Your task to perform on an android device: Go to network settings Image 0: 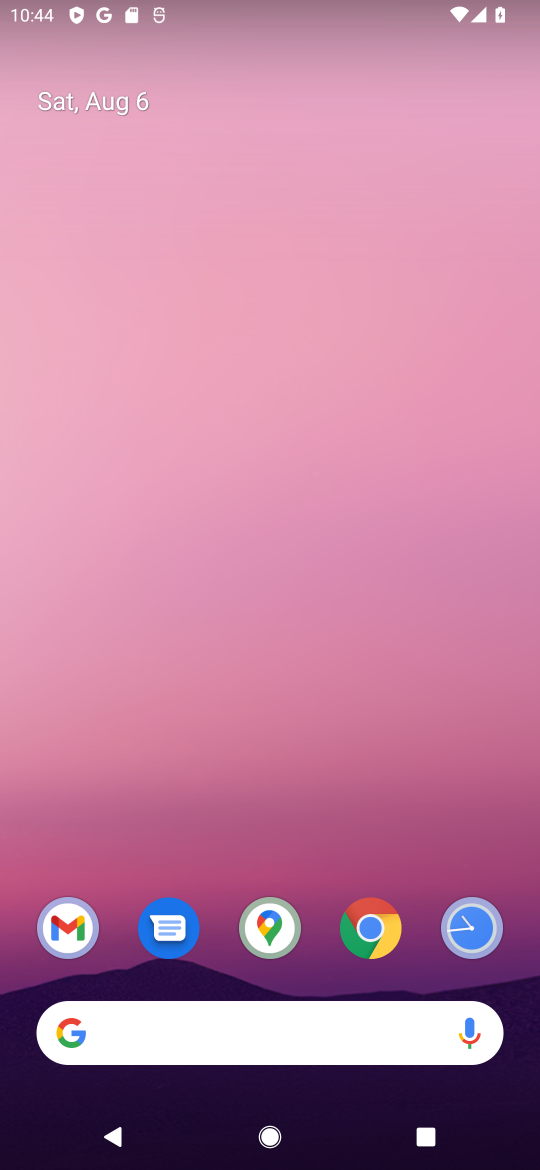
Step 0: drag from (156, 870) to (194, 71)
Your task to perform on an android device: Go to network settings Image 1: 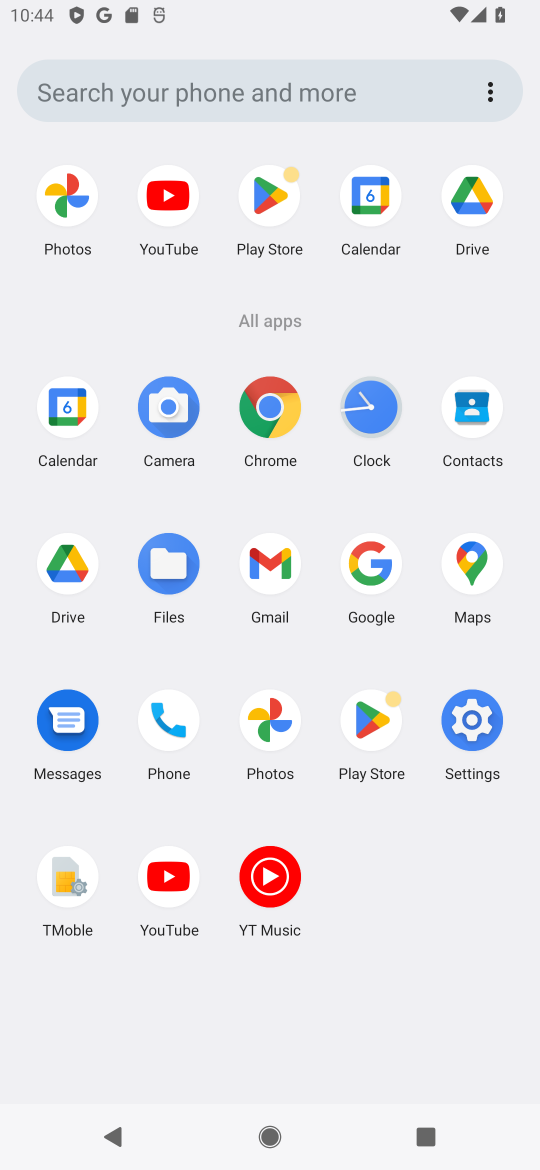
Step 1: click (475, 728)
Your task to perform on an android device: Go to network settings Image 2: 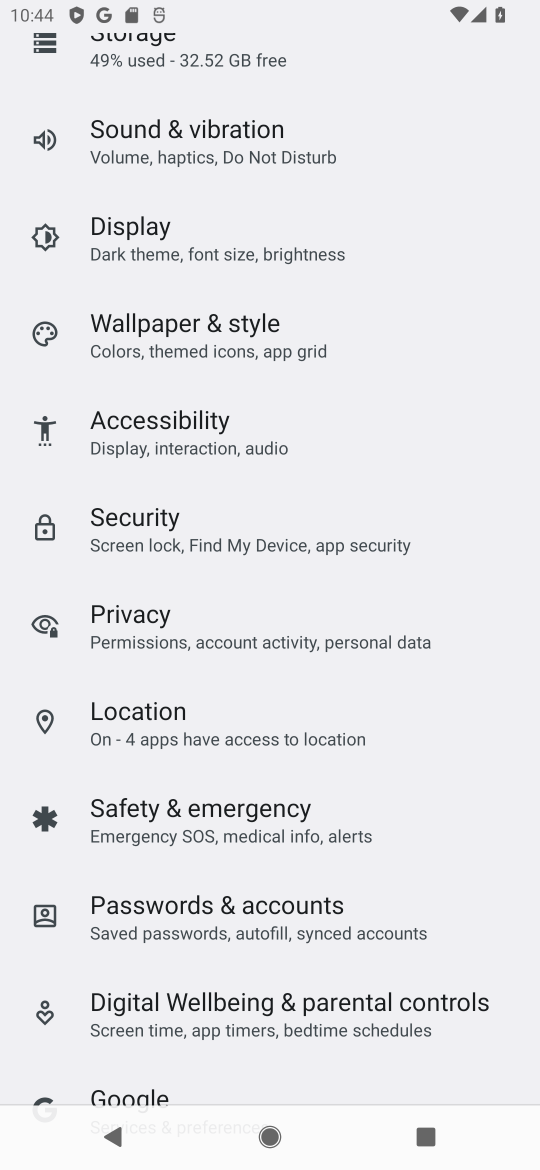
Step 2: drag from (378, 214) to (374, 729)
Your task to perform on an android device: Go to network settings Image 3: 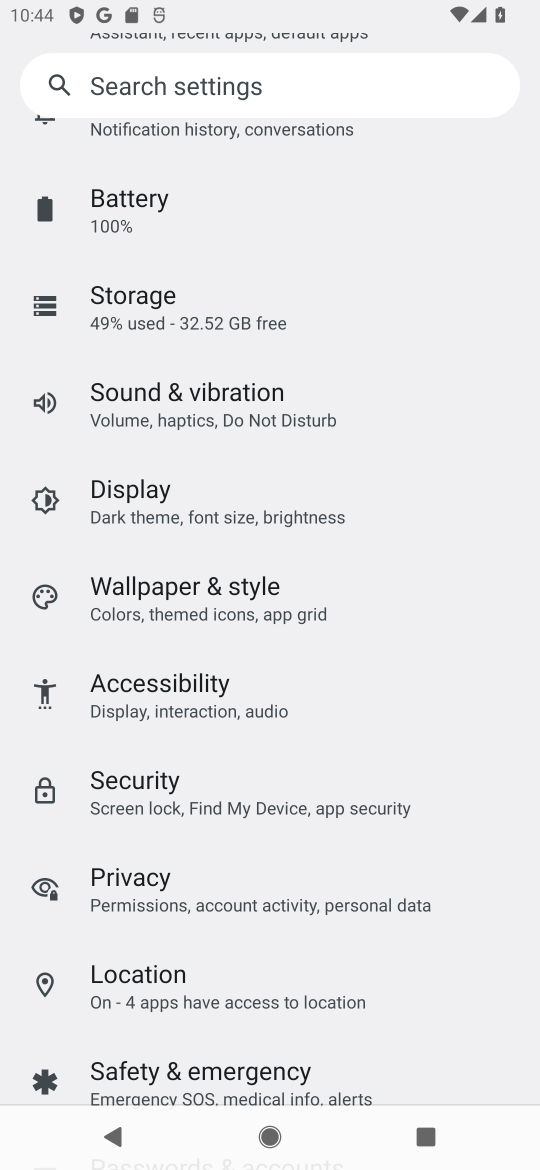
Step 3: drag from (420, 291) to (373, 1139)
Your task to perform on an android device: Go to network settings Image 4: 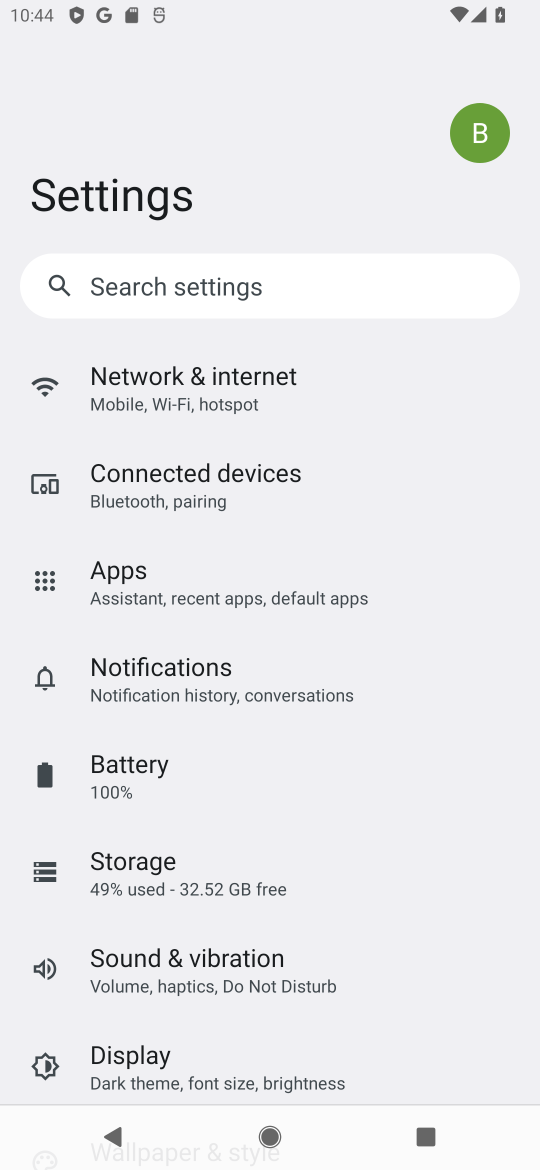
Step 4: click (206, 405)
Your task to perform on an android device: Go to network settings Image 5: 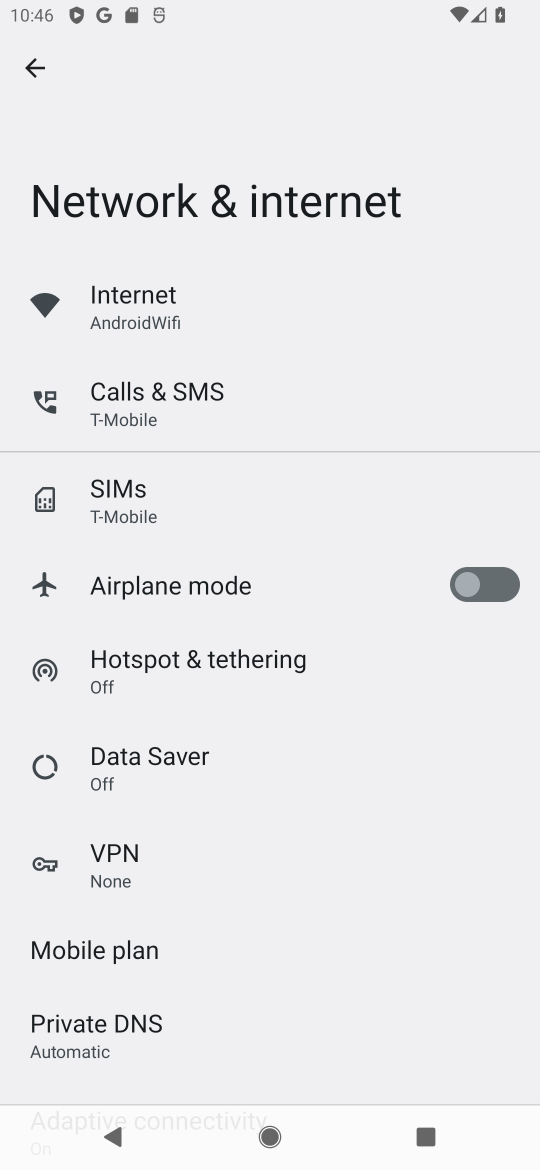
Step 5: task complete